Your task to perform on an android device: open wifi settings Image 0: 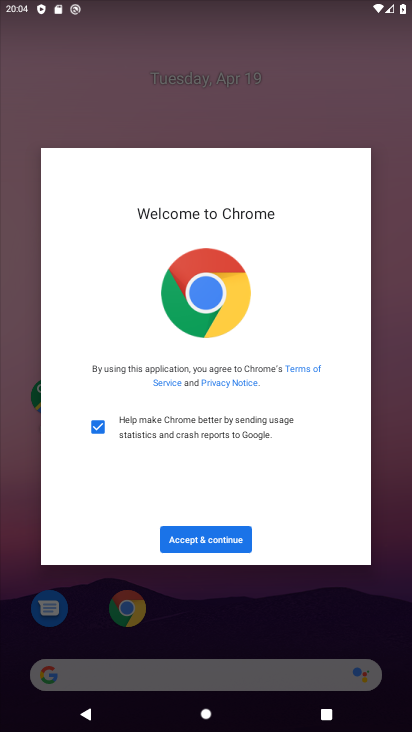
Step 0: press home button
Your task to perform on an android device: open wifi settings Image 1: 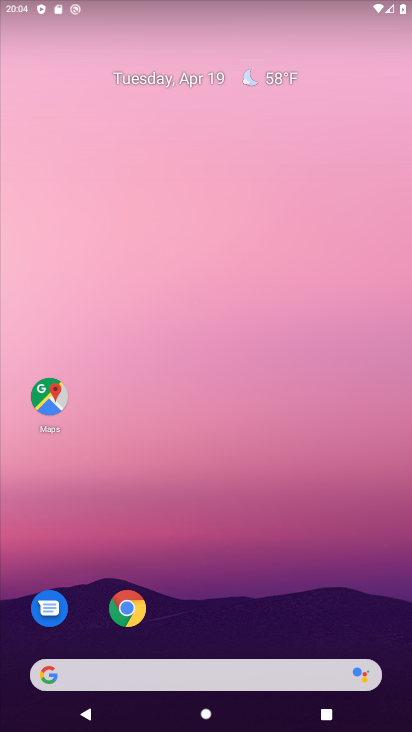
Step 1: drag from (239, 605) to (271, 47)
Your task to perform on an android device: open wifi settings Image 2: 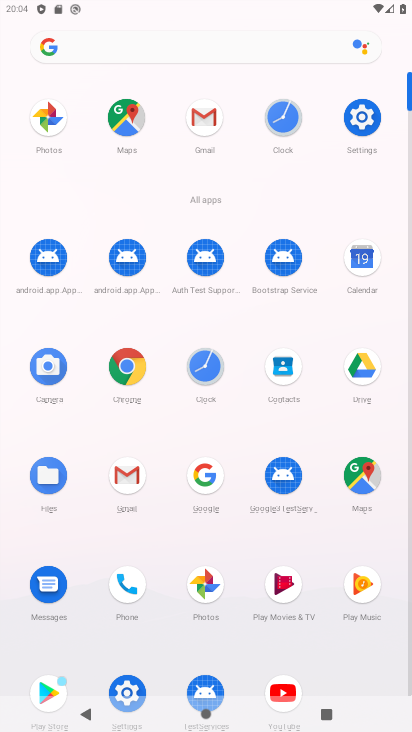
Step 2: click (360, 116)
Your task to perform on an android device: open wifi settings Image 3: 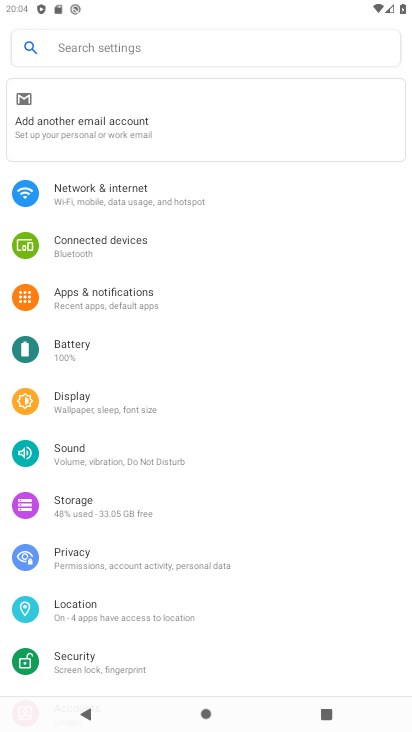
Step 3: click (127, 200)
Your task to perform on an android device: open wifi settings Image 4: 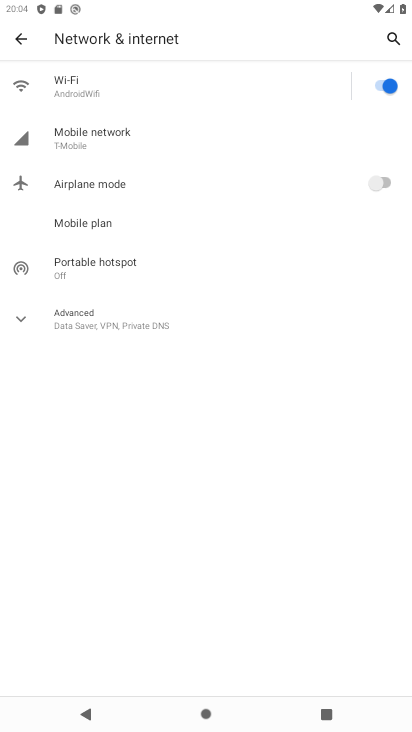
Step 4: click (60, 86)
Your task to perform on an android device: open wifi settings Image 5: 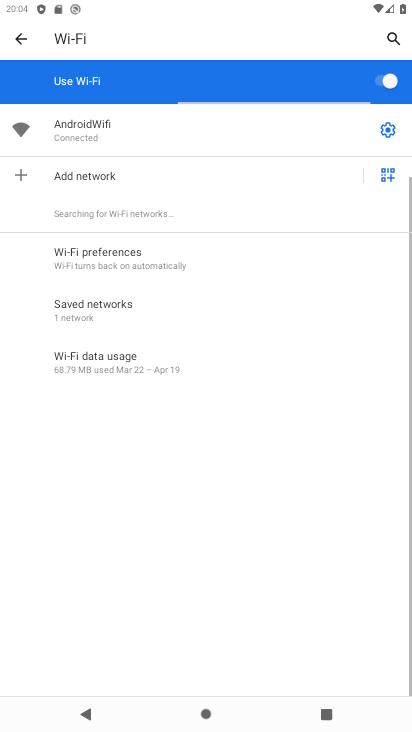
Step 5: click (113, 132)
Your task to perform on an android device: open wifi settings Image 6: 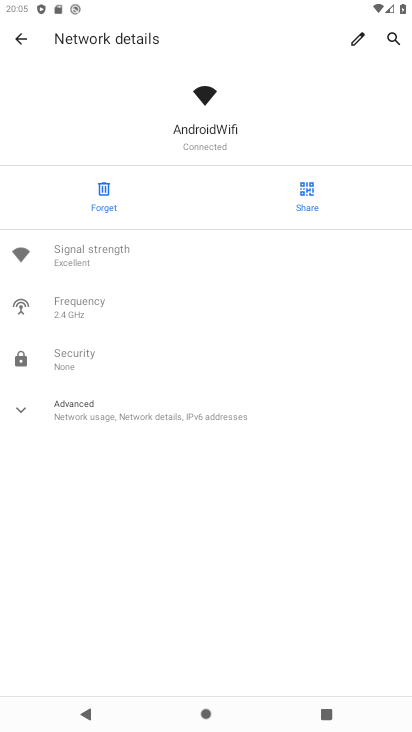
Step 6: task complete